Your task to perform on an android device: What is the news today? Image 0: 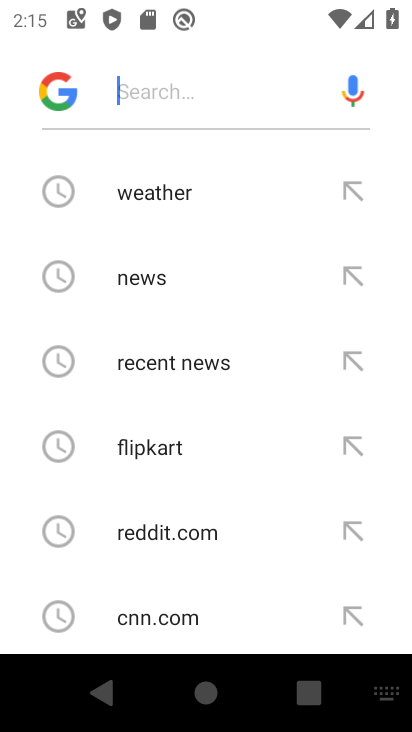
Step 0: press home button
Your task to perform on an android device: What is the news today? Image 1: 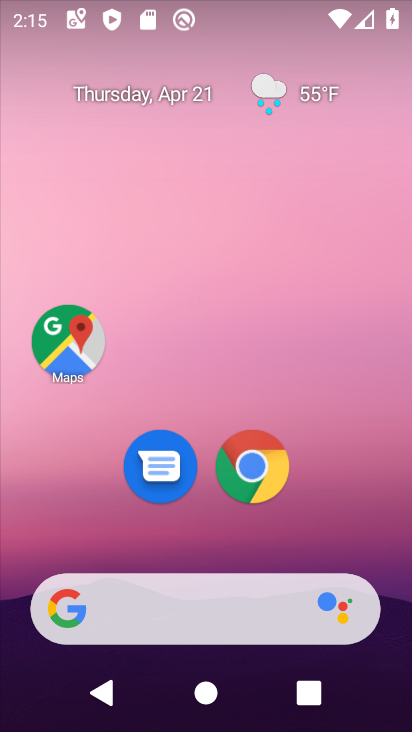
Step 1: drag from (300, 561) to (306, 53)
Your task to perform on an android device: What is the news today? Image 2: 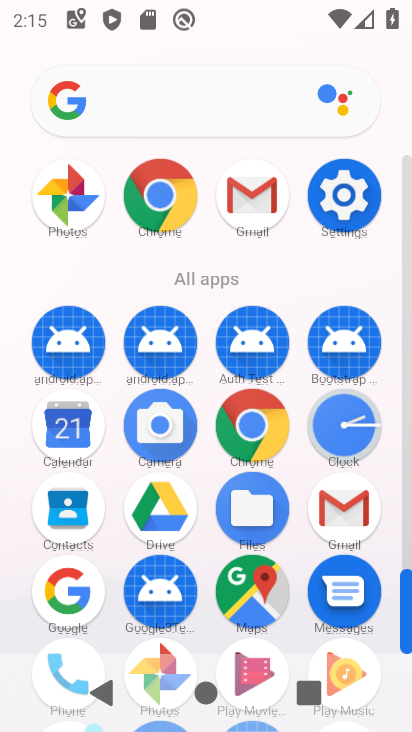
Step 2: click (249, 431)
Your task to perform on an android device: What is the news today? Image 3: 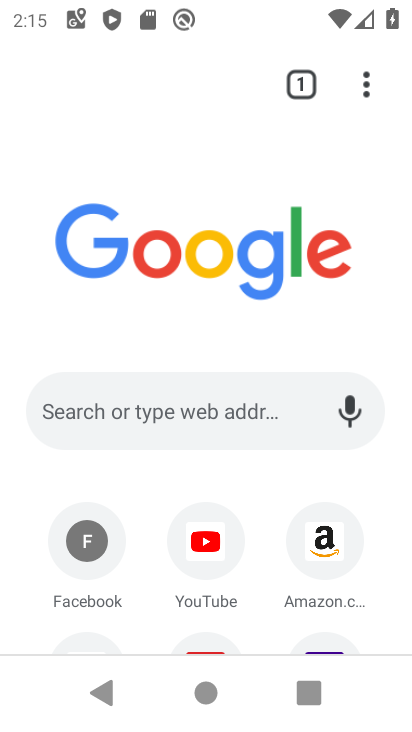
Step 3: click (194, 424)
Your task to perform on an android device: What is the news today? Image 4: 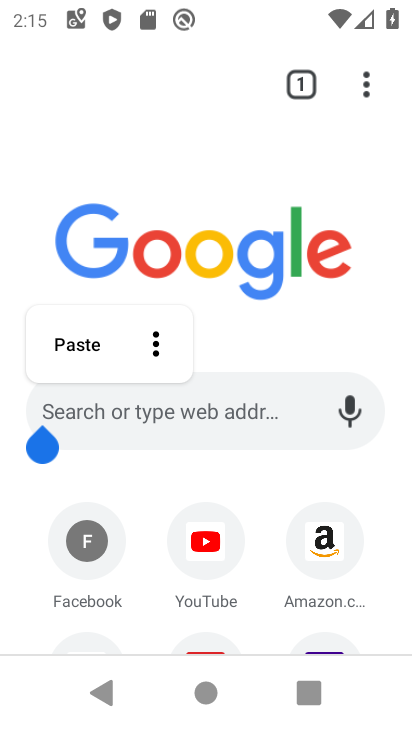
Step 4: click (194, 424)
Your task to perform on an android device: What is the news today? Image 5: 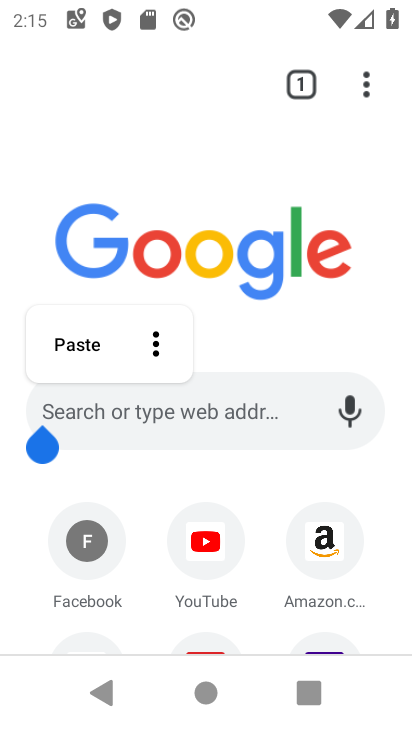
Step 5: click (284, 404)
Your task to perform on an android device: What is the news today? Image 6: 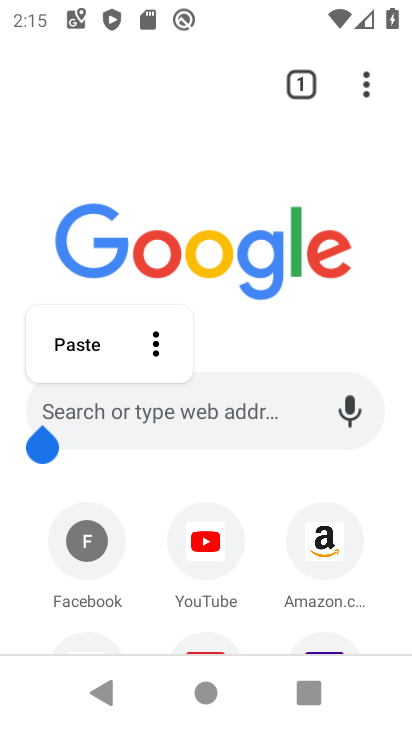
Step 6: click (284, 404)
Your task to perform on an android device: What is the news today? Image 7: 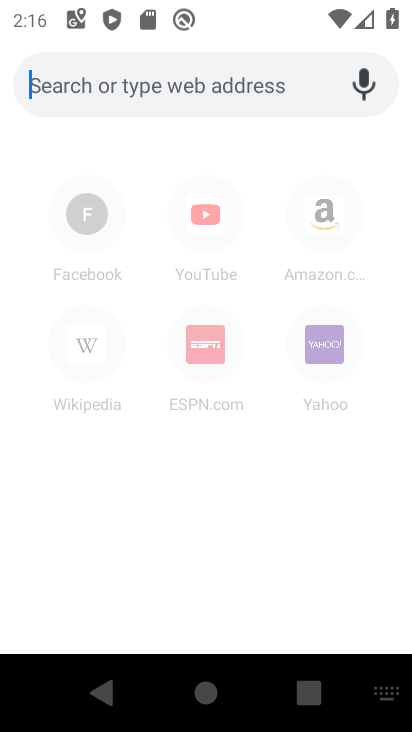
Step 7: type "news today"
Your task to perform on an android device: What is the news today? Image 8: 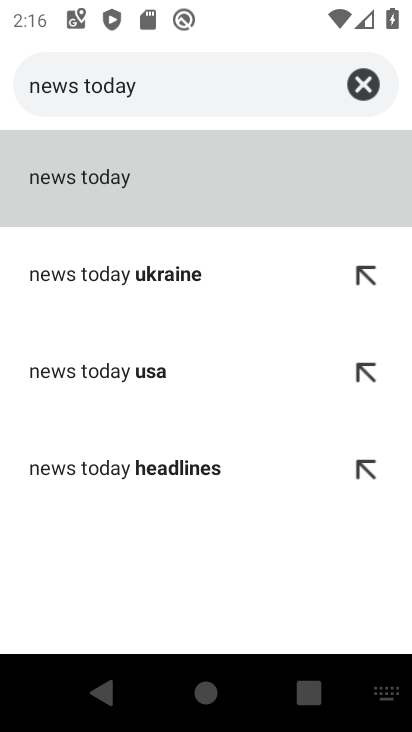
Step 8: click (64, 174)
Your task to perform on an android device: What is the news today? Image 9: 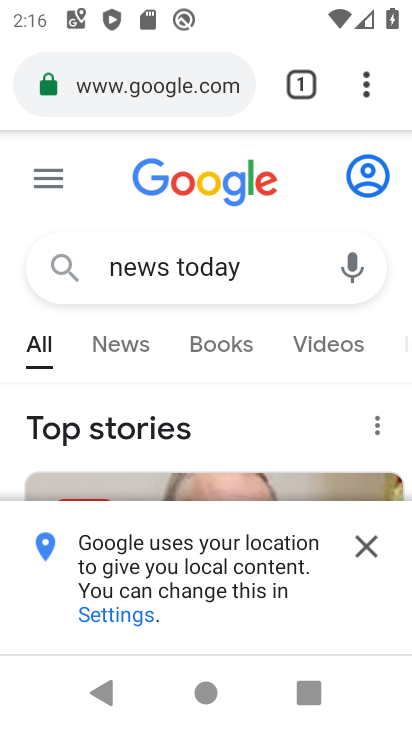
Step 9: task complete